Your task to perform on an android device: change notification settings in the gmail app Image 0: 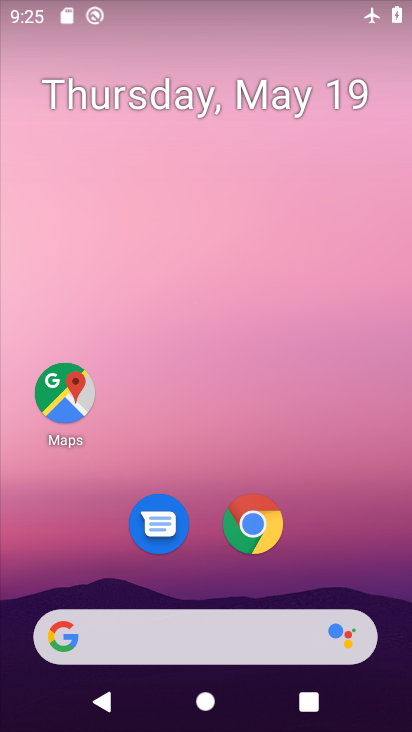
Step 0: drag from (322, 548) to (355, 43)
Your task to perform on an android device: change notification settings in the gmail app Image 1: 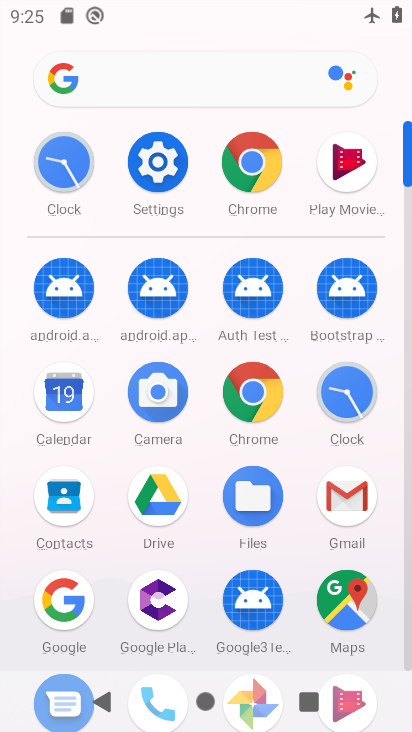
Step 1: click (334, 491)
Your task to perform on an android device: change notification settings in the gmail app Image 2: 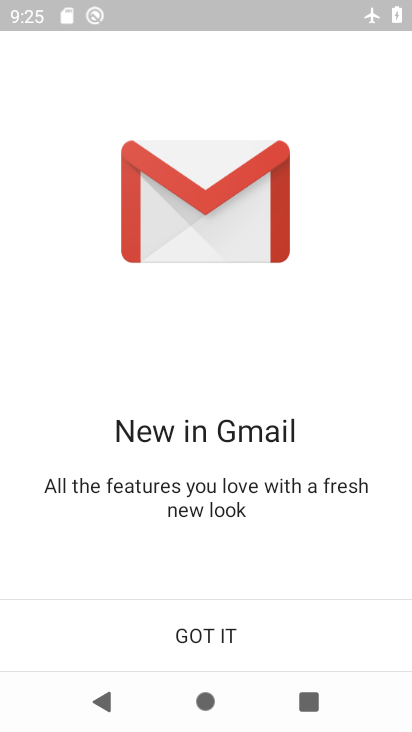
Step 2: click (244, 629)
Your task to perform on an android device: change notification settings in the gmail app Image 3: 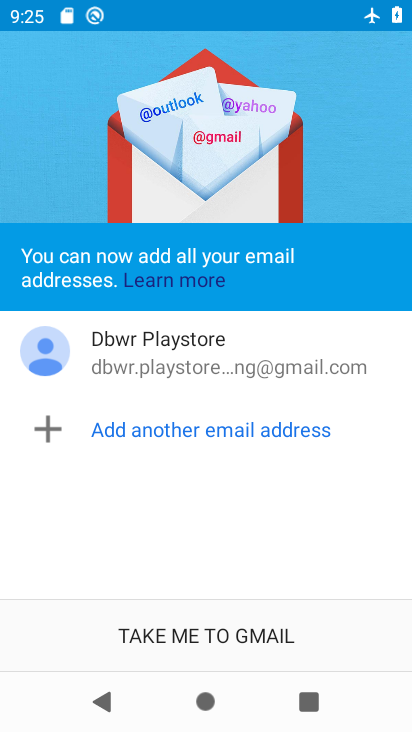
Step 3: click (244, 629)
Your task to perform on an android device: change notification settings in the gmail app Image 4: 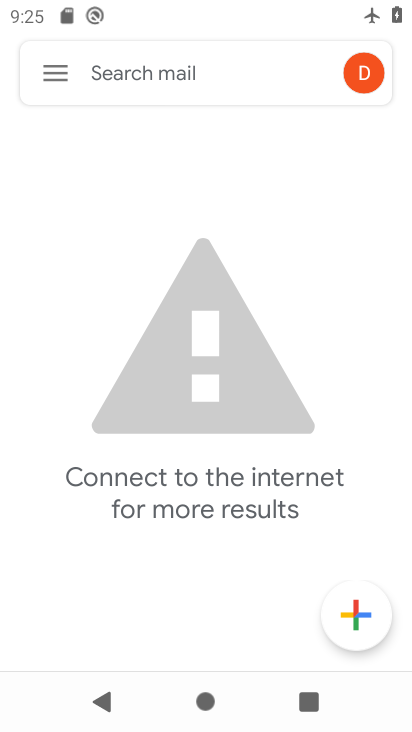
Step 4: click (55, 69)
Your task to perform on an android device: change notification settings in the gmail app Image 5: 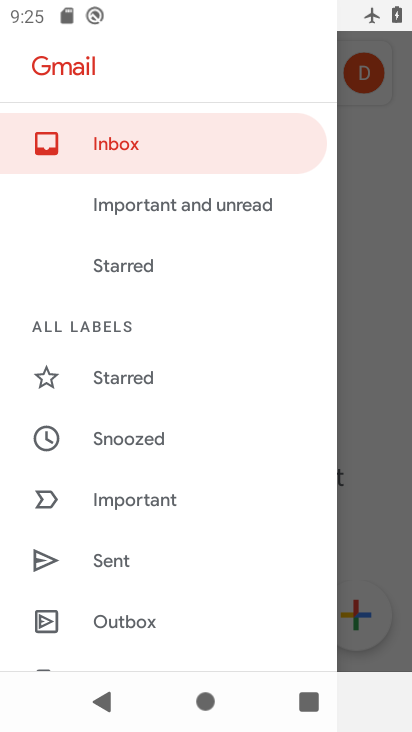
Step 5: drag from (166, 545) to (218, 105)
Your task to perform on an android device: change notification settings in the gmail app Image 6: 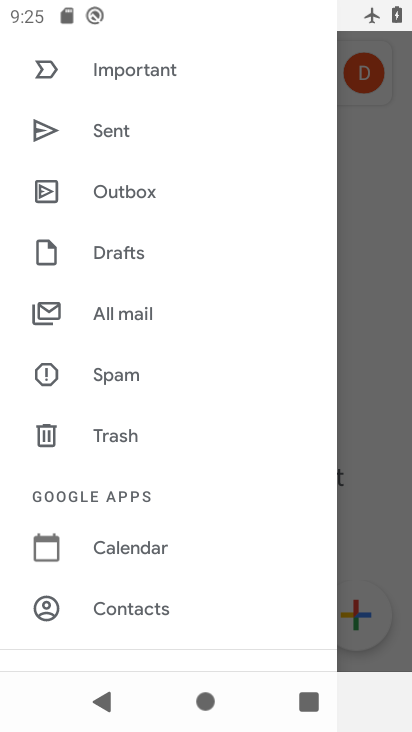
Step 6: drag from (163, 456) to (201, 180)
Your task to perform on an android device: change notification settings in the gmail app Image 7: 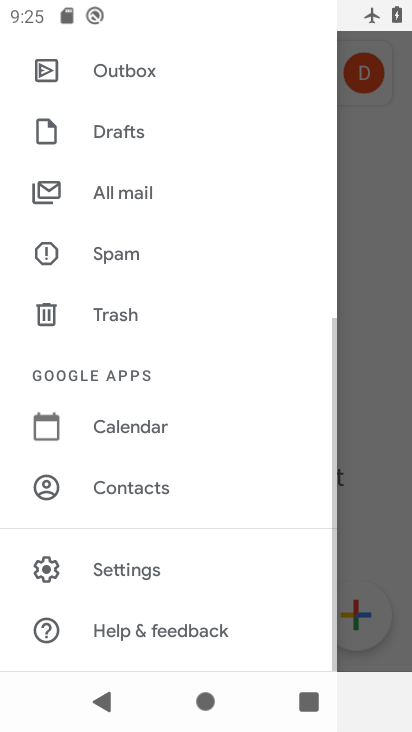
Step 7: click (137, 564)
Your task to perform on an android device: change notification settings in the gmail app Image 8: 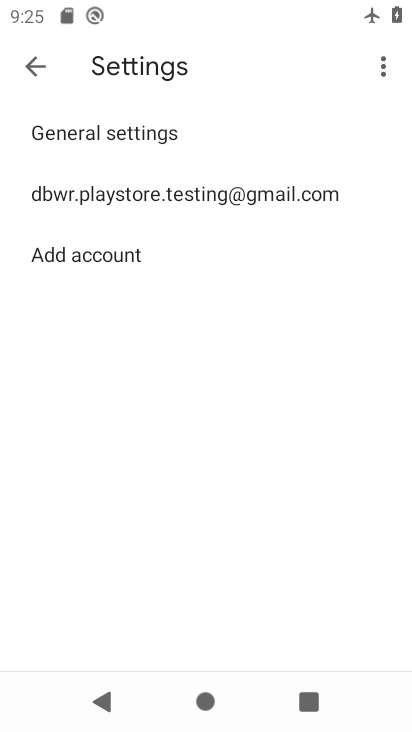
Step 8: click (236, 188)
Your task to perform on an android device: change notification settings in the gmail app Image 9: 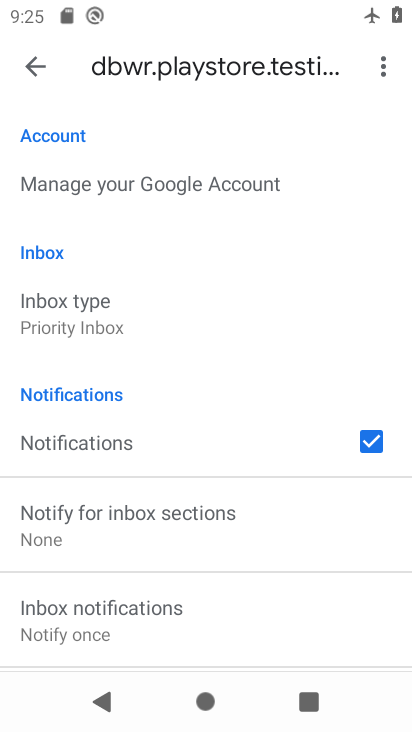
Step 9: drag from (206, 498) to (236, 195)
Your task to perform on an android device: change notification settings in the gmail app Image 10: 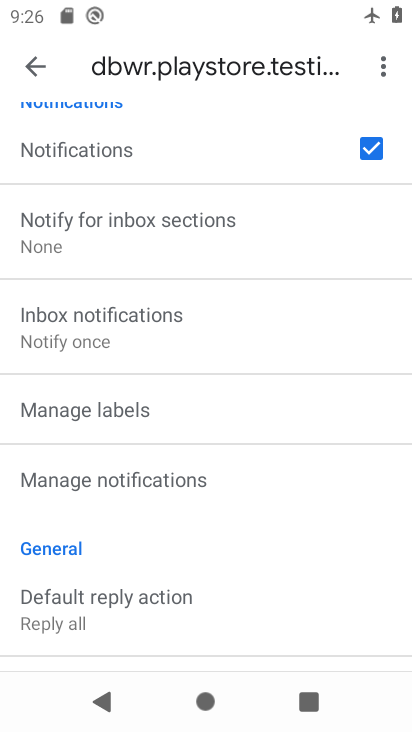
Step 10: click (186, 476)
Your task to perform on an android device: change notification settings in the gmail app Image 11: 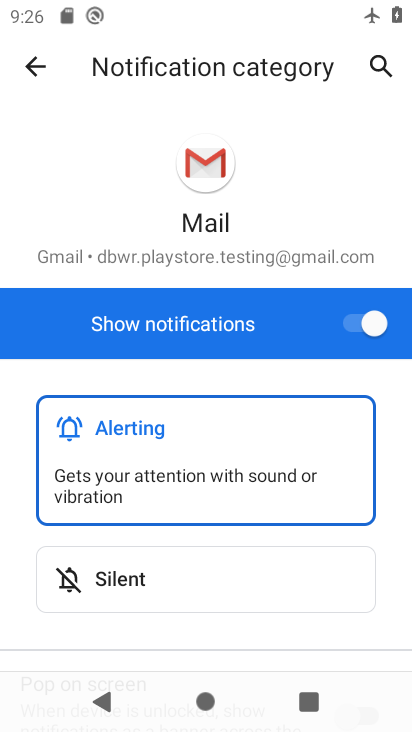
Step 11: click (351, 324)
Your task to perform on an android device: change notification settings in the gmail app Image 12: 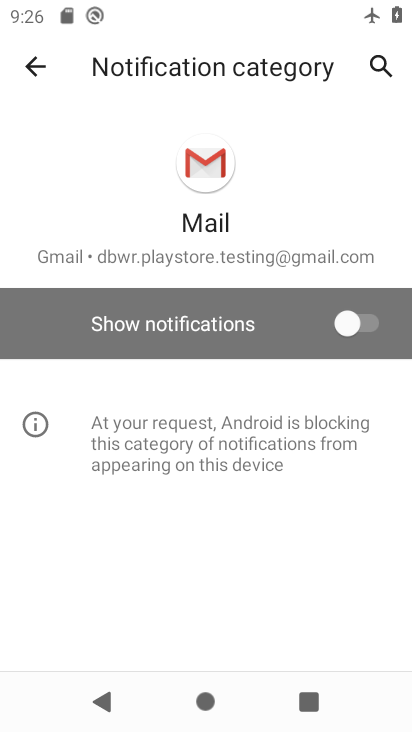
Step 12: task complete